Your task to perform on an android device: Clear all items from cart on amazon.com. Image 0: 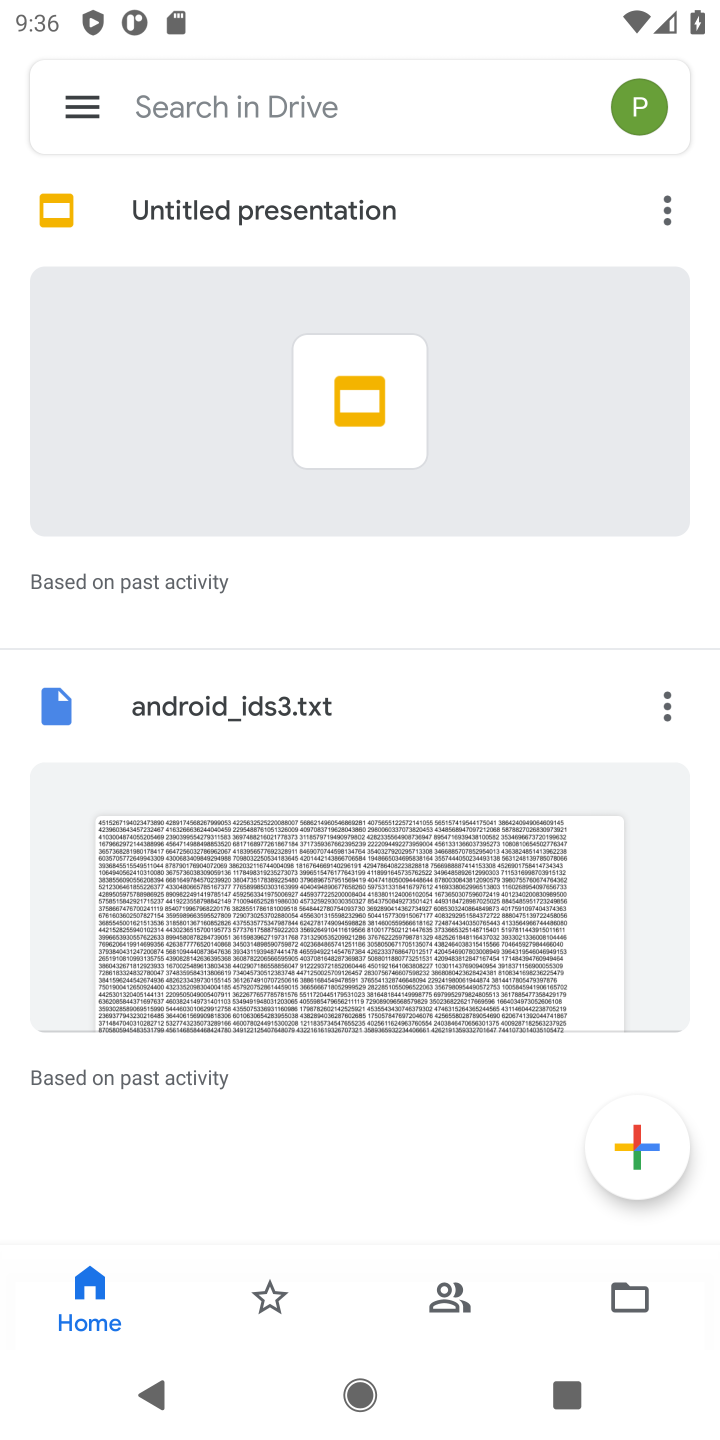
Step 0: press home button
Your task to perform on an android device: Clear all items from cart on amazon.com. Image 1: 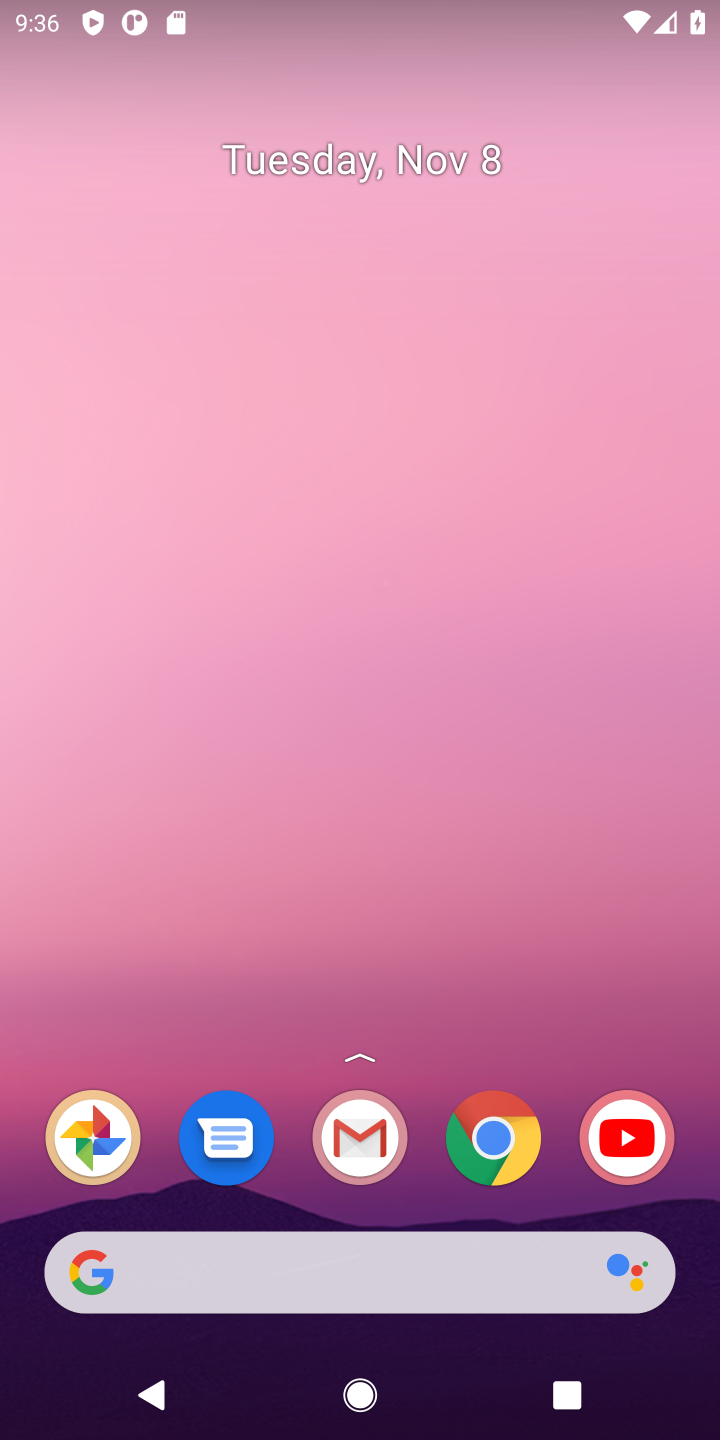
Step 1: click (510, 1114)
Your task to perform on an android device: Clear all items from cart on amazon.com. Image 2: 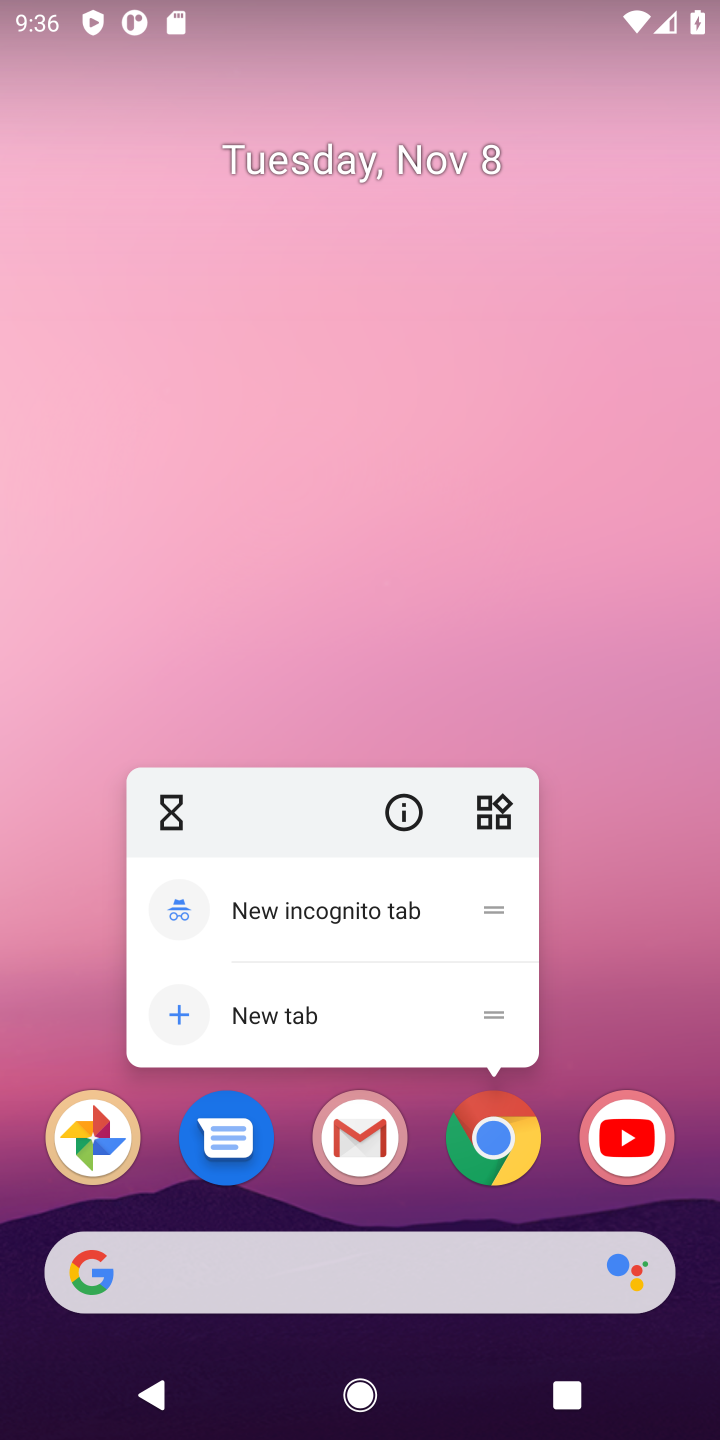
Step 2: click (510, 1125)
Your task to perform on an android device: Clear all items from cart on amazon.com. Image 3: 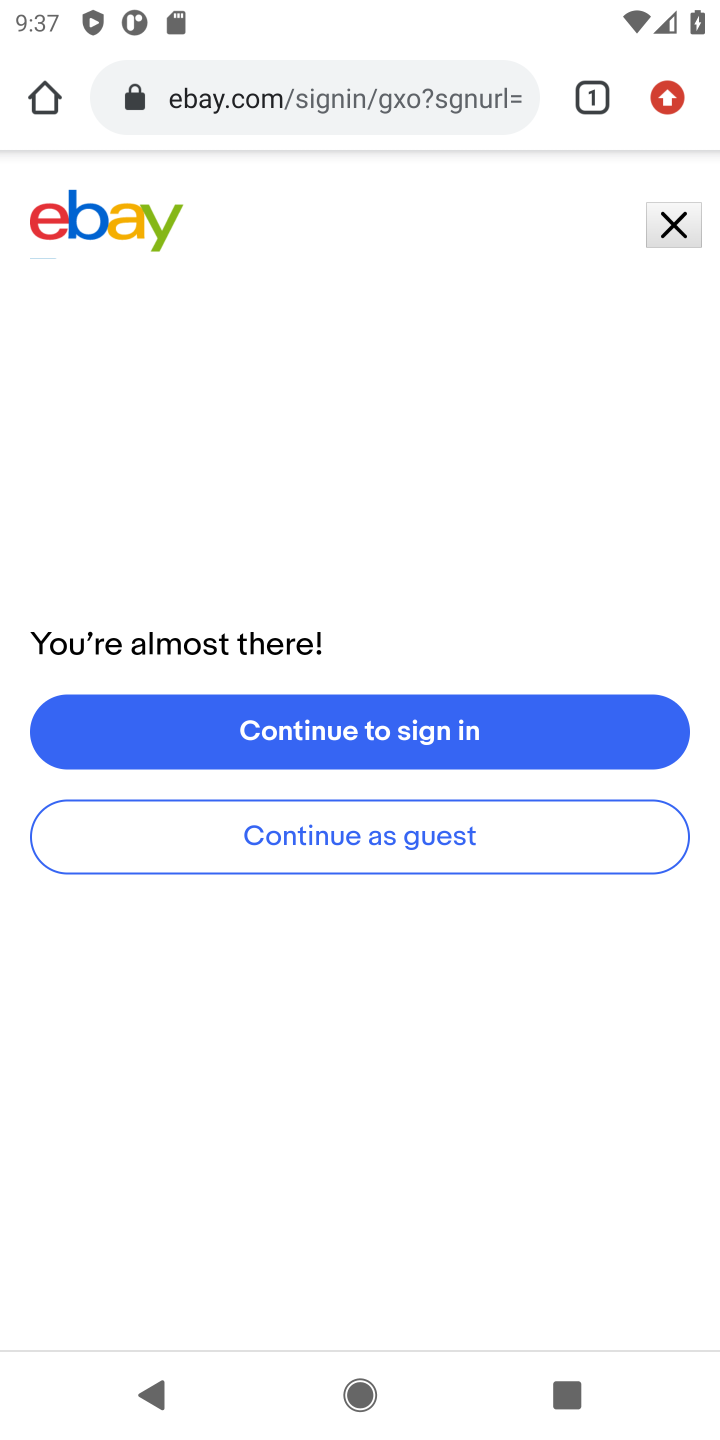
Step 3: click (332, 88)
Your task to perform on an android device: Clear all items from cart on amazon.com. Image 4: 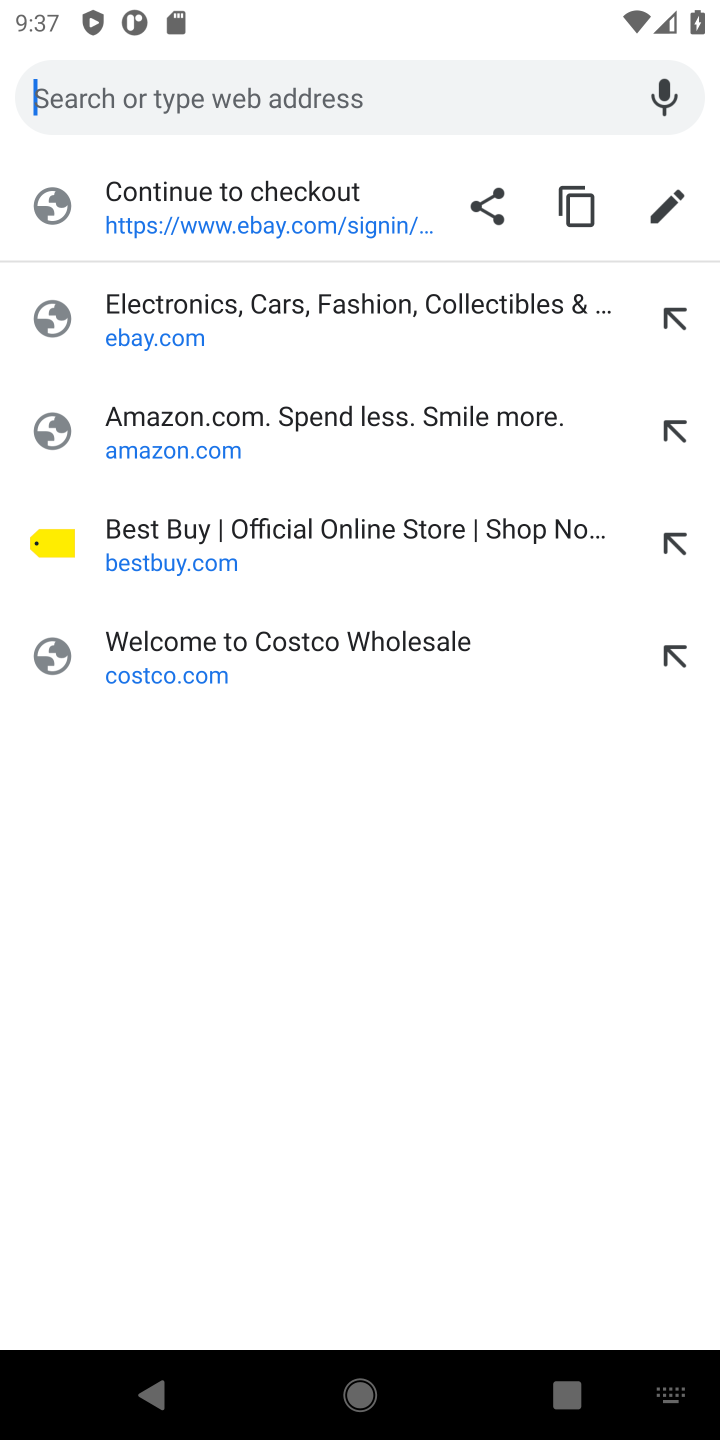
Step 4: click (183, 440)
Your task to perform on an android device: Clear all items from cart on amazon.com. Image 5: 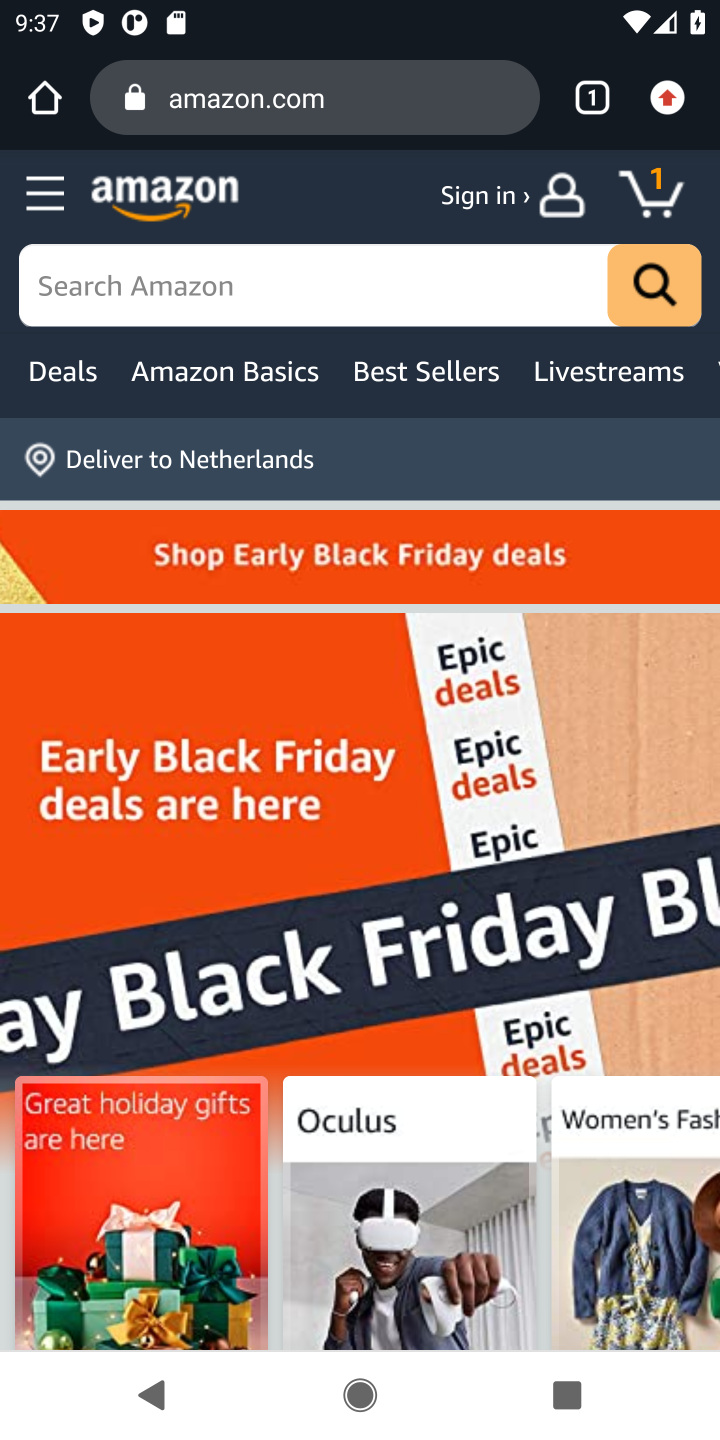
Step 5: click (664, 189)
Your task to perform on an android device: Clear all items from cart on amazon.com. Image 6: 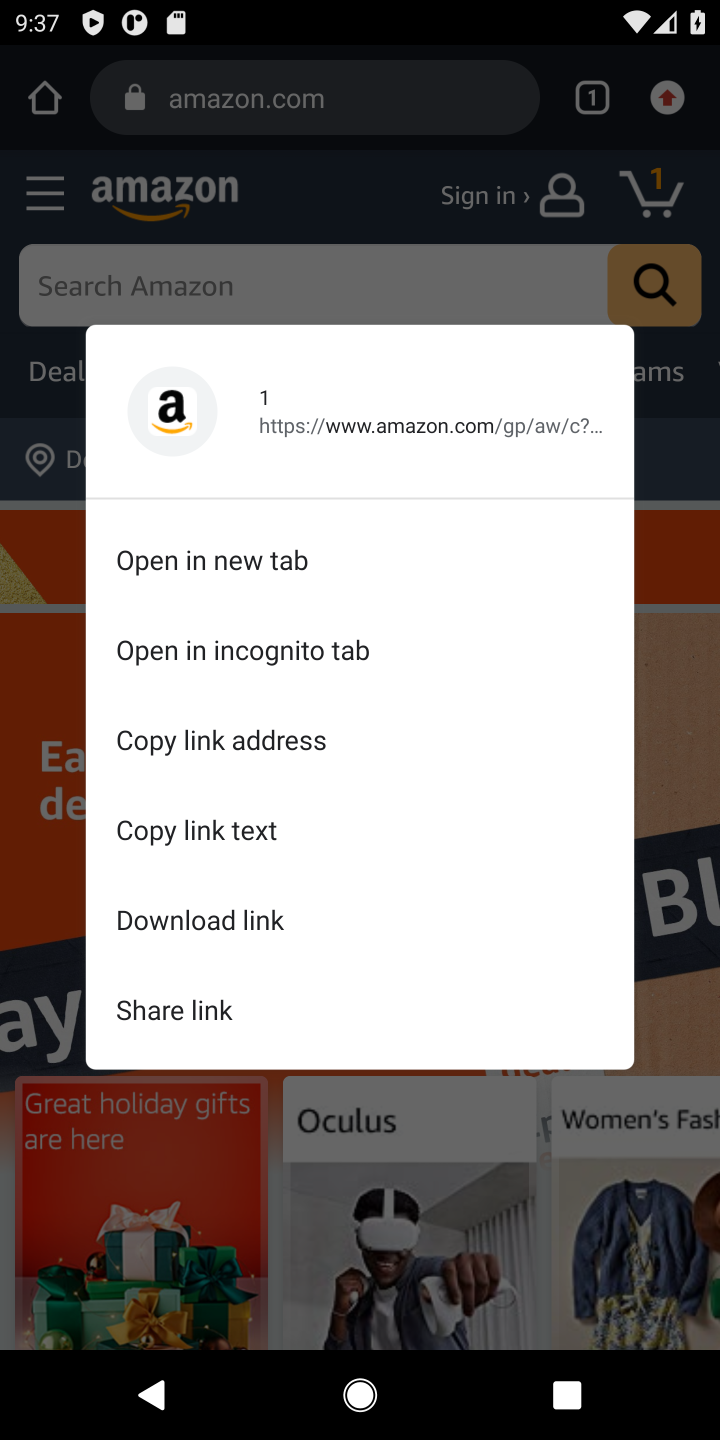
Step 6: click (643, 173)
Your task to perform on an android device: Clear all items from cart on amazon.com. Image 7: 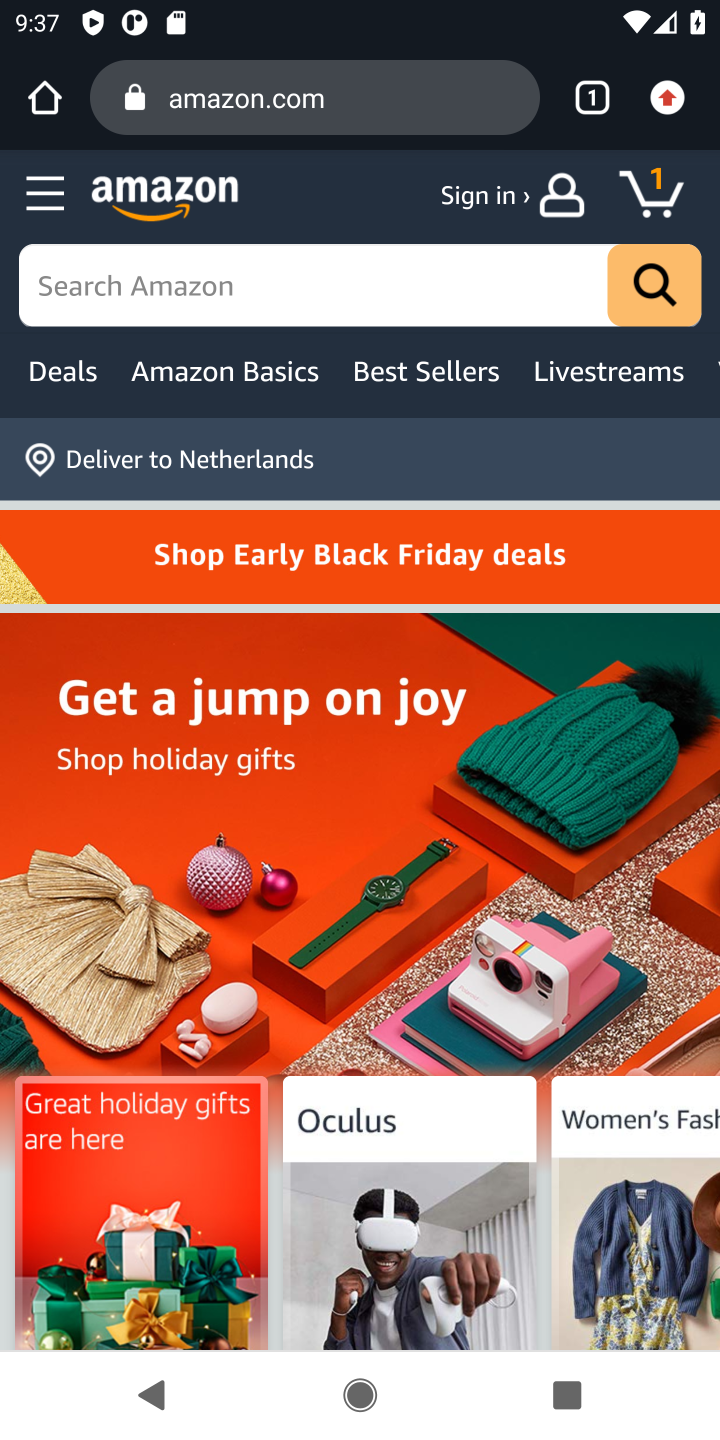
Step 7: click (661, 184)
Your task to perform on an android device: Clear all items from cart on amazon.com. Image 8: 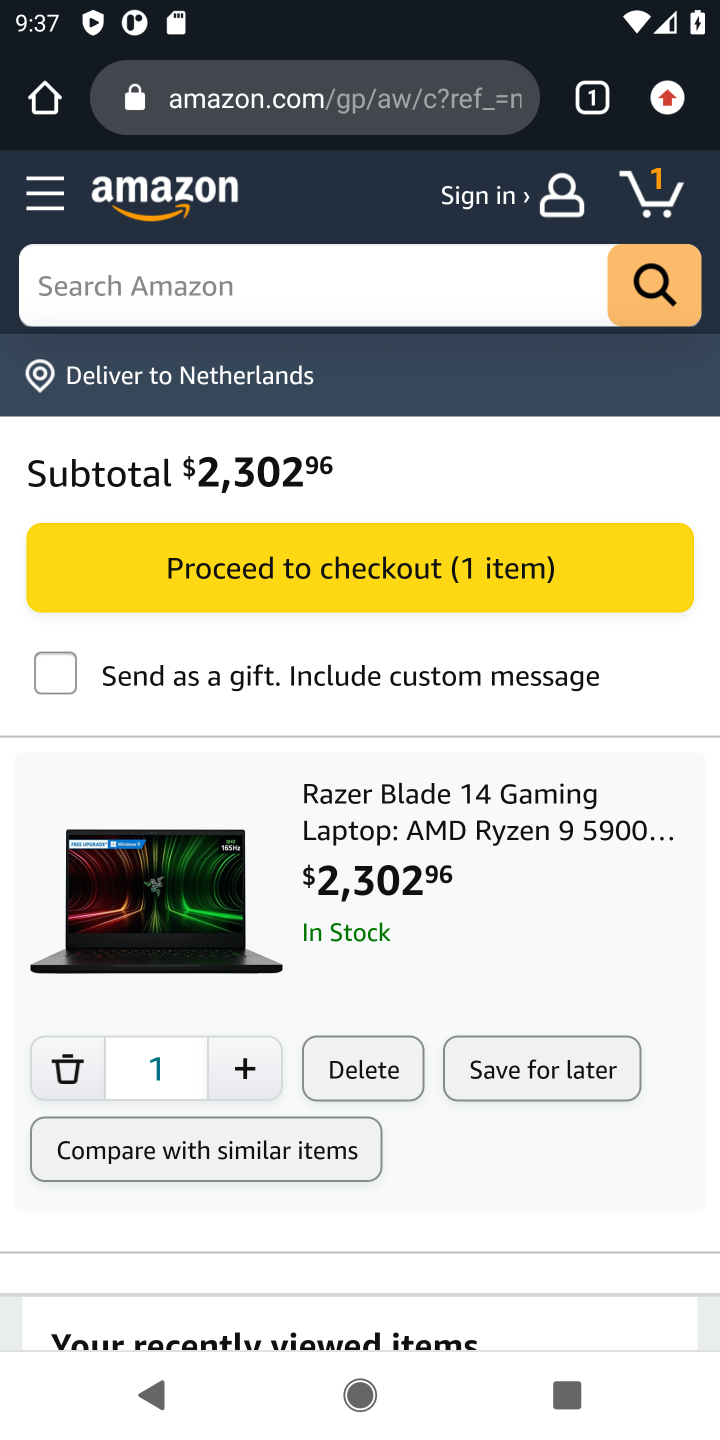
Step 8: click (383, 1072)
Your task to perform on an android device: Clear all items from cart on amazon.com. Image 9: 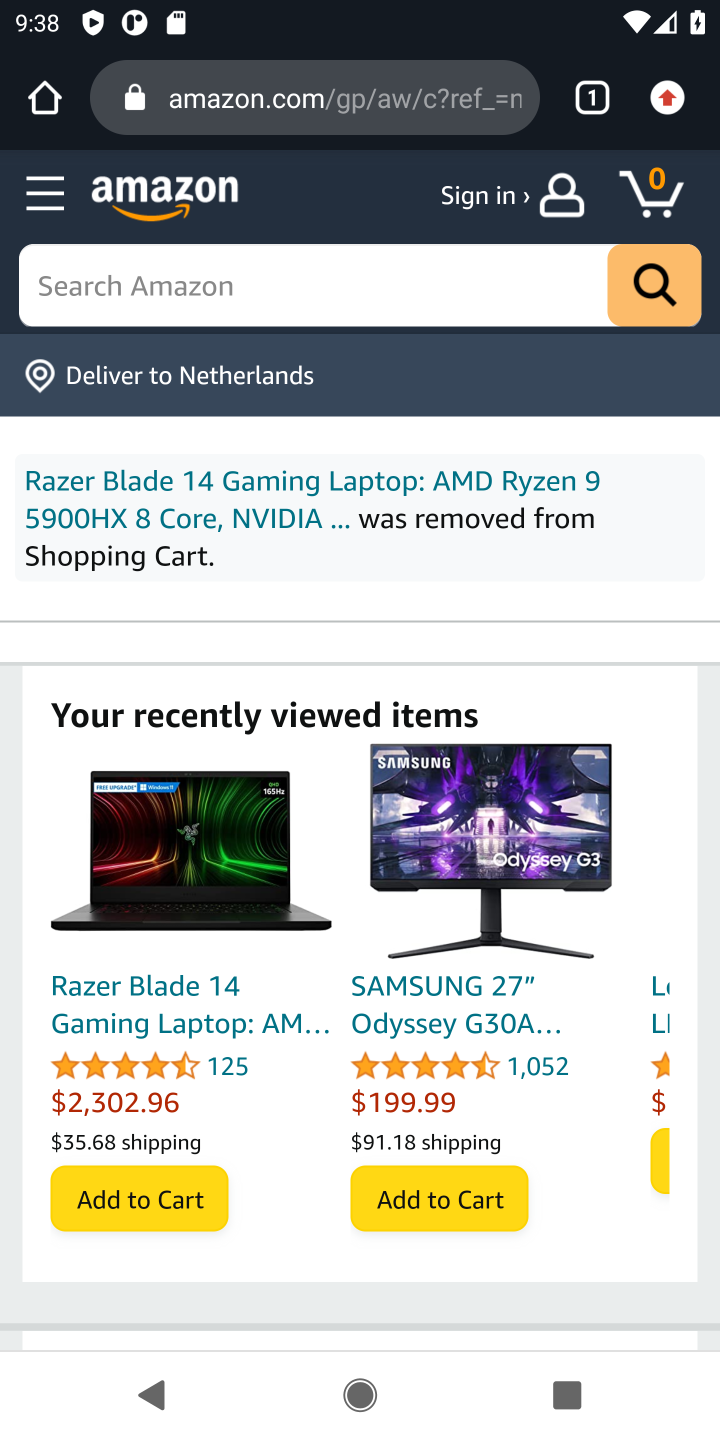
Step 9: task complete